Your task to perform on an android device: Show the shopping cart on newegg.com. Search for "usb-b" on newegg.com, select the first entry, add it to the cart, then select checkout. Image 0: 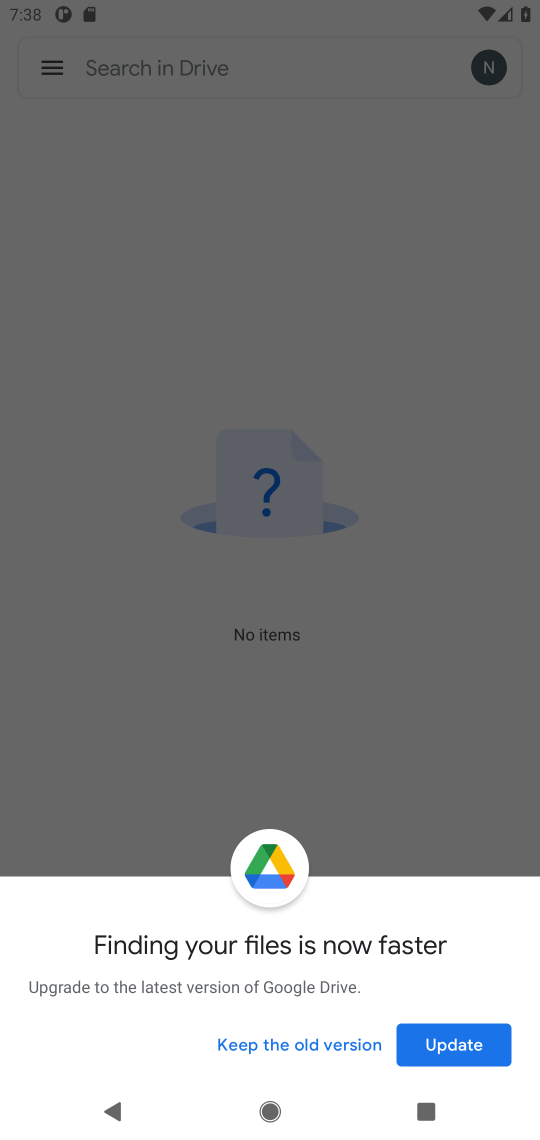
Step 0: press home button
Your task to perform on an android device: Show the shopping cart on newegg.com. Search for "usb-b" on newegg.com, select the first entry, add it to the cart, then select checkout. Image 1: 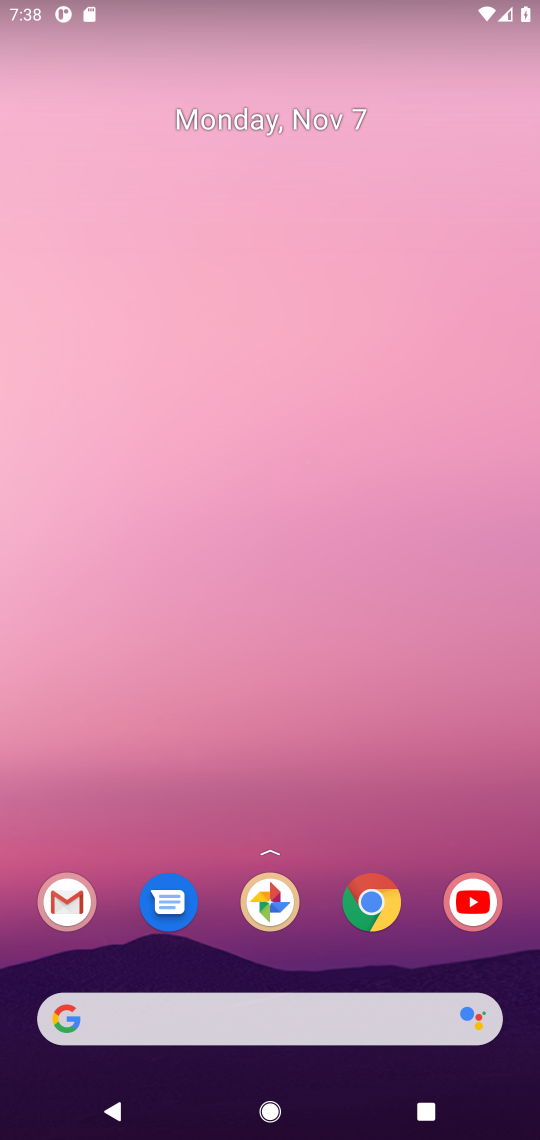
Step 1: click (364, 903)
Your task to perform on an android device: Show the shopping cart on newegg.com. Search for "usb-b" on newegg.com, select the first entry, add it to the cart, then select checkout. Image 2: 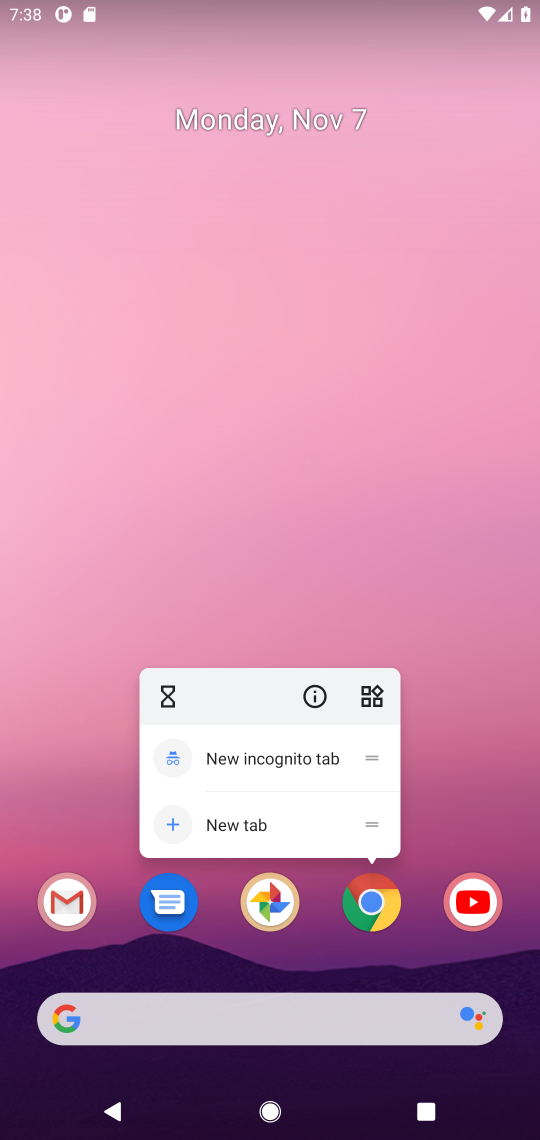
Step 2: click (364, 903)
Your task to perform on an android device: Show the shopping cart on newegg.com. Search for "usb-b" on newegg.com, select the first entry, add it to the cart, then select checkout. Image 3: 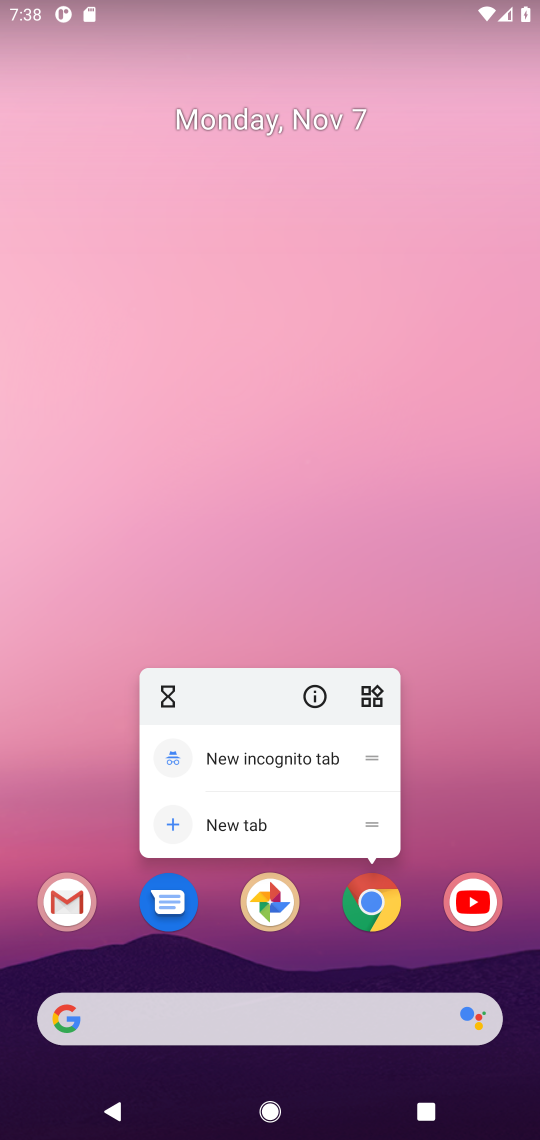
Step 3: click (373, 908)
Your task to perform on an android device: Show the shopping cart on newegg.com. Search for "usb-b" on newegg.com, select the first entry, add it to the cart, then select checkout. Image 4: 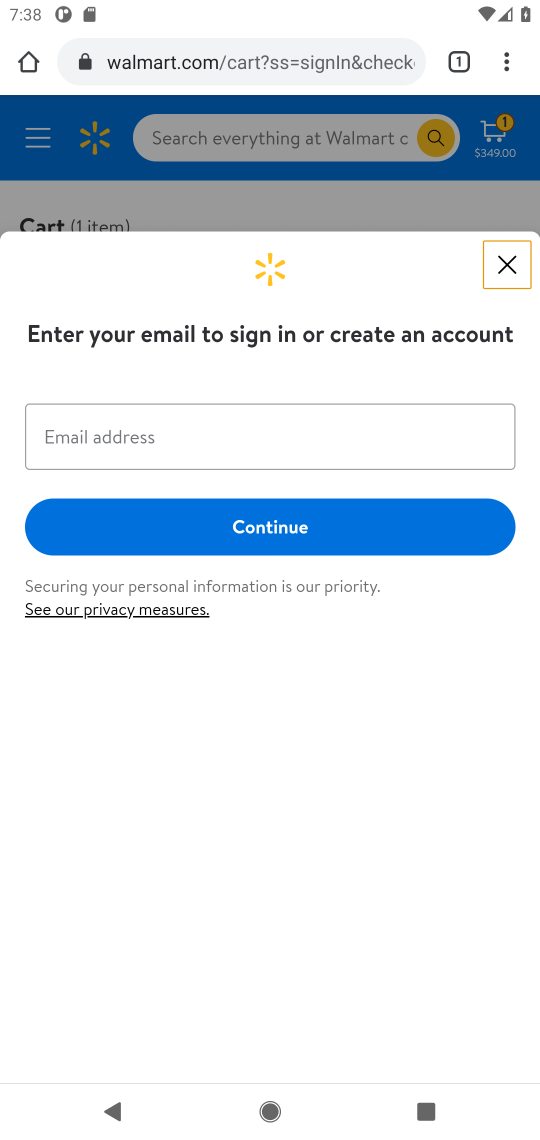
Step 4: click (259, 69)
Your task to perform on an android device: Show the shopping cart on newegg.com. Search for "usb-b" on newegg.com, select the first entry, add it to the cart, then select checkout. Image 5: 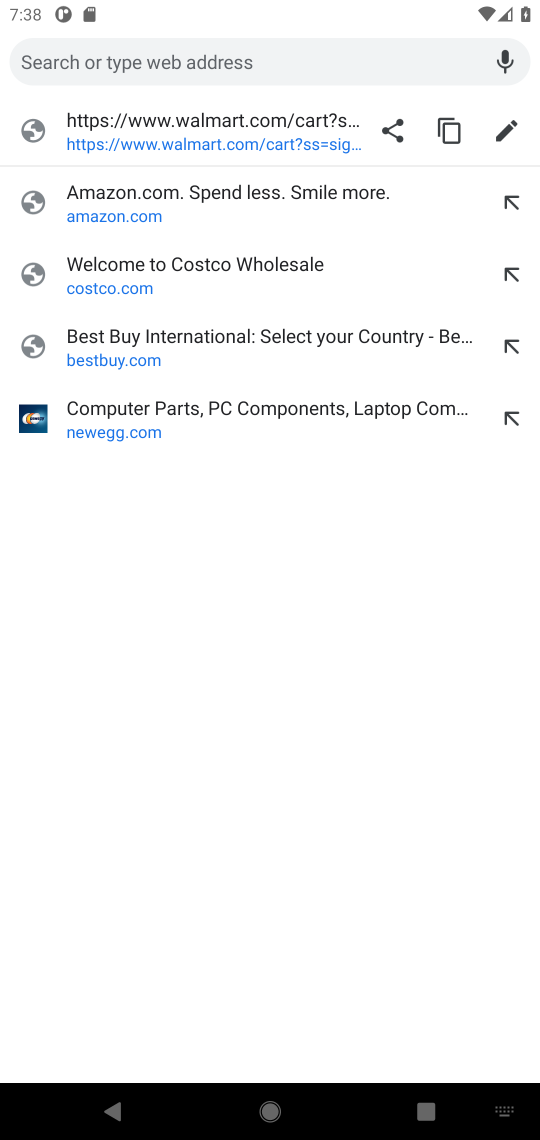
Step 5: click (100, 437)
Your task to perform on an android device: Show the shopping cart on newegg.com. Search for "usb-b" on newegg.com, select the first entry, add it to the cart, then select checkout. Image 6: 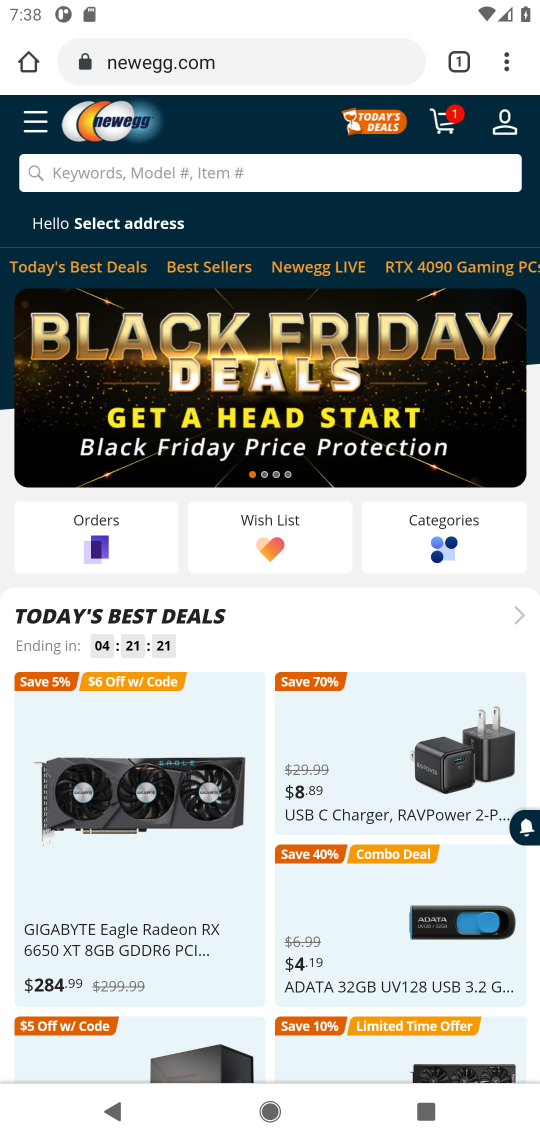
Step 6: click (447, 122)
Your task to perform on an android device: Show the shopping cart on newegg.com. Search for "usb-b" on newegg.com, select the first entry, add it to the cart, then select checkout. Image 7: 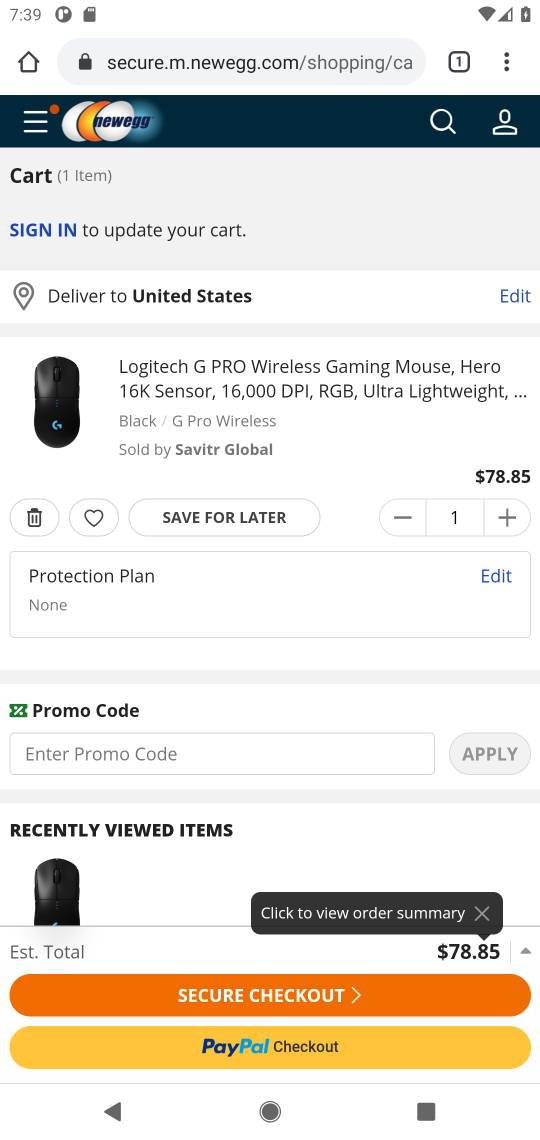
Step 7: click (439, 130)
Your task to perform on an android device: Show the shopping cart on newegg.com. Search for "usb-b" on newegg.com, select the first entry, add it to the cart, then select checkout. Image 8: 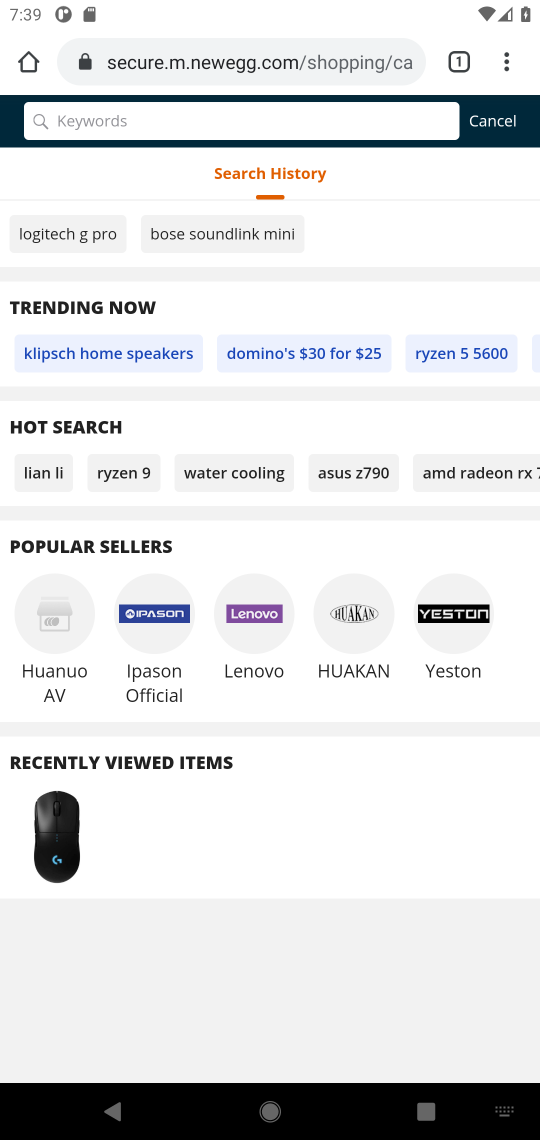
Step 8: type "usb-b"
Your task to perform on an android device: Show the shopping cart on newegg.com. Search for "usb-b" on newegg.com, select the first entry, add it to the cart, then select checkout. Image 9: 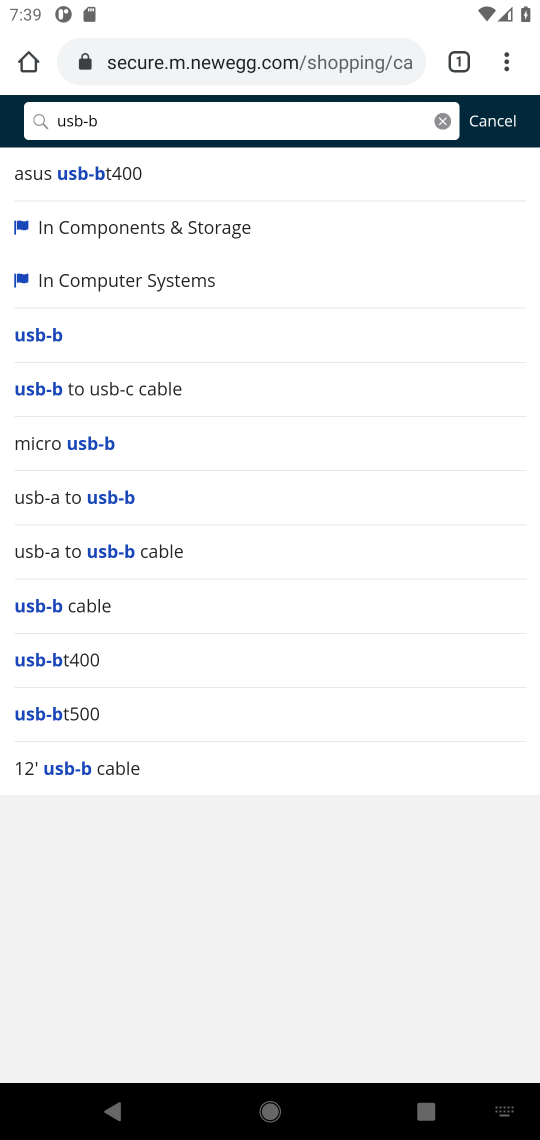
Step 9: click (47, 343)
Your task to perform on an android device: Show the shopping cart on newegg.com. Search for "usb-b" on newegg.com, select the first entry, add it to the cart, then select checkout. Image 10: 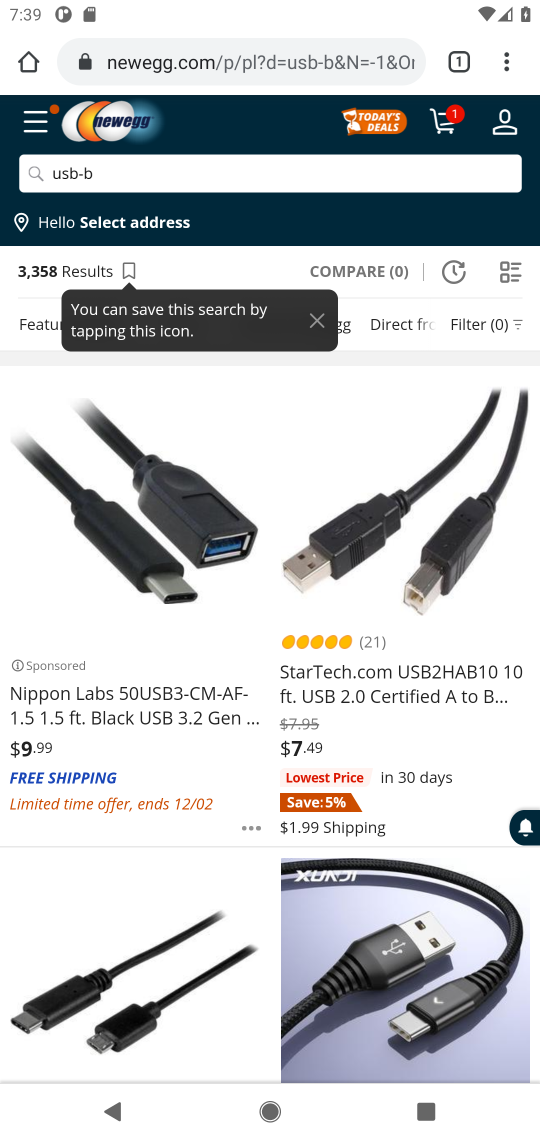
Step 10: click (154, 585)
Your task to perform on an android device: Show the shopping cart on newegg.com. Search for "usb-b" on newegg.com, select the first entry, add it to the cart, then select checkout. Image 11: 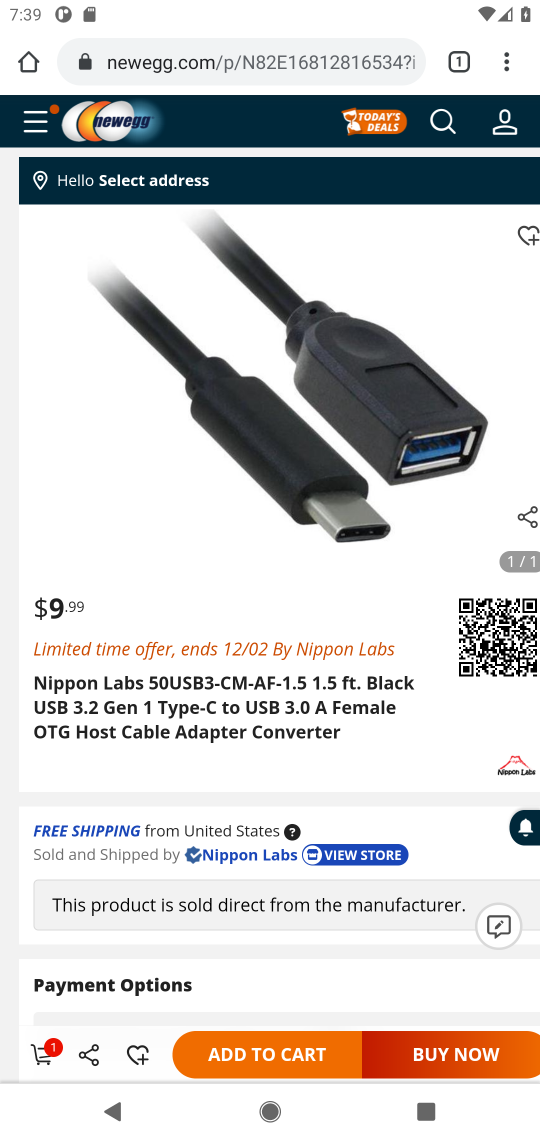
Step 11: task complete